Your task to perform on an android device: Go to Wikipedia Image 0: 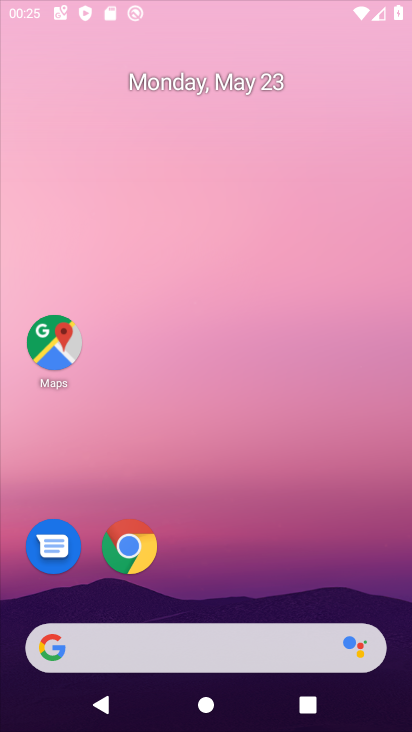
Step 0: click (307, 129)
Your task to perform on an android device: Go to Wikipedia Image 1: 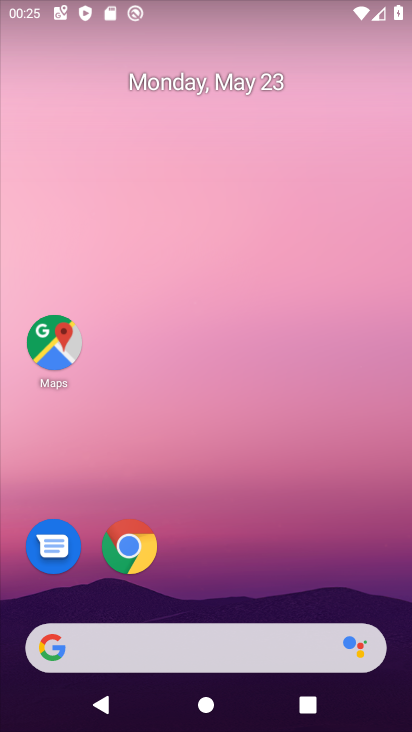
Step 1: drag from (181, 609) to (213, 140)
Your task to perform on an android device: Go to Wikipedia Image 2: 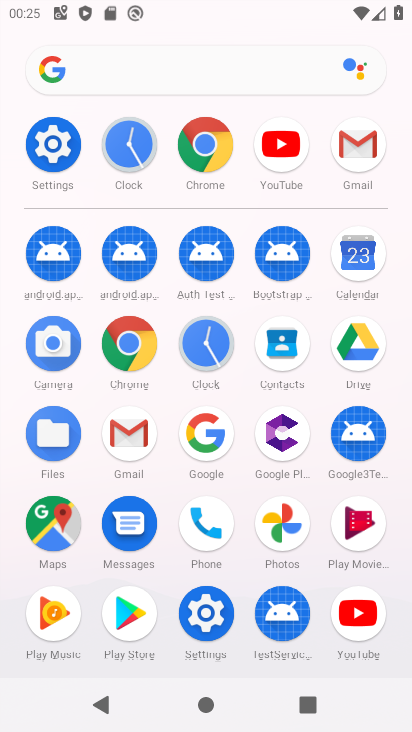
Step 2: click (170, 54)
Your task to perform on an android device: Go to Wikipedia Image 3: 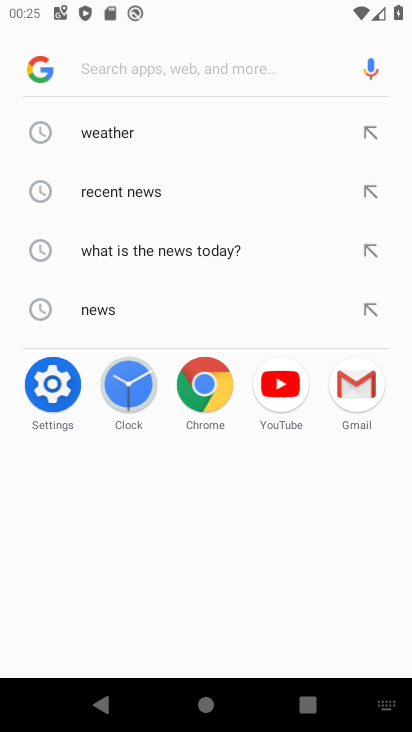
Step 3: type "wikipedia"
Your task to perform on an android device: Go to Wikipedia Image 4: 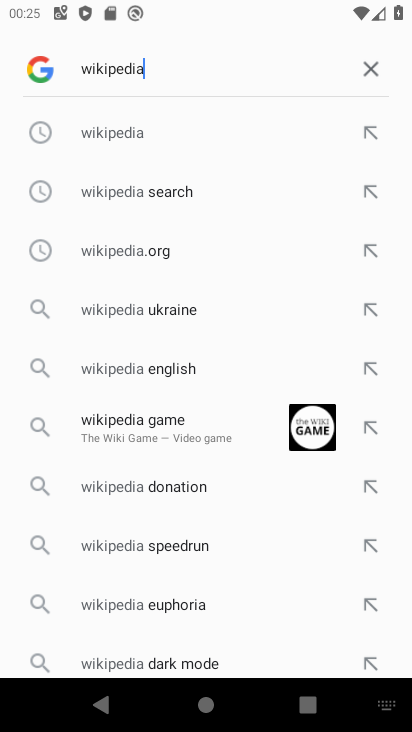
Step 4: click (100, 118)
Your task to perform on an android device: Go to Wikipedia Image 5: 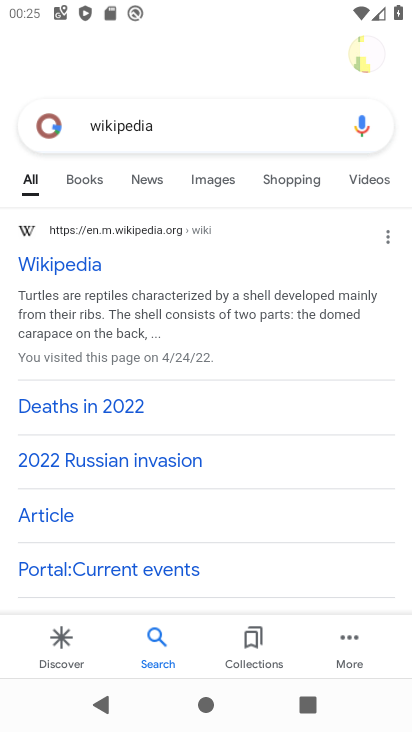
Step 5: drag from (259, 514) to (333, 114)
Your task to perform on an android device: Go to Wikipedia Image 6: 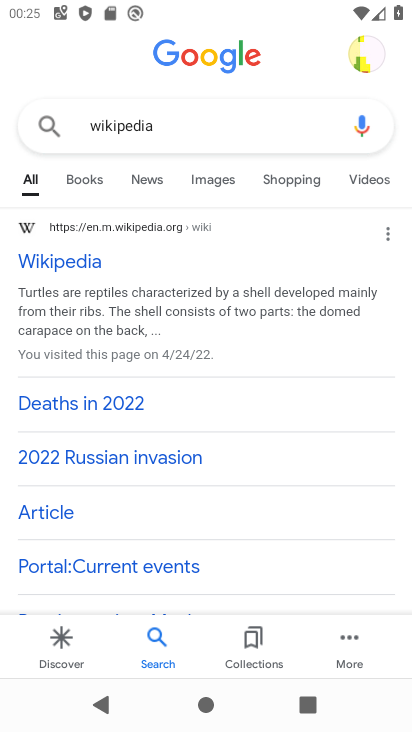
Step 6: drag from (236, 262) to (221, 672)
Your task to perform on an android device: Go to Wikipedia Image 7: 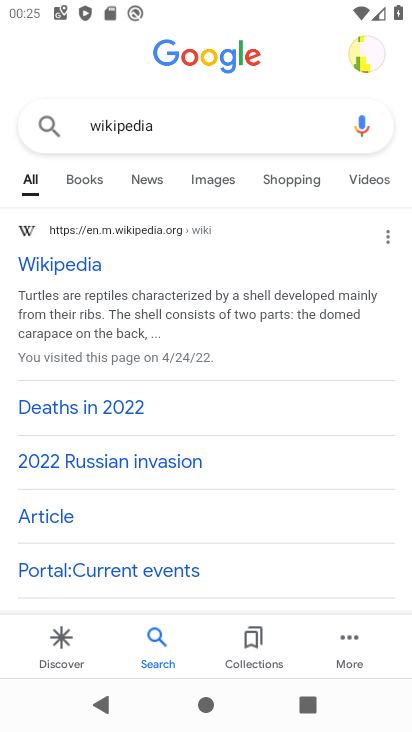
Step 7: click (64, 269)
Your task to perform on an android device: Go to Wikipedia Image 8: 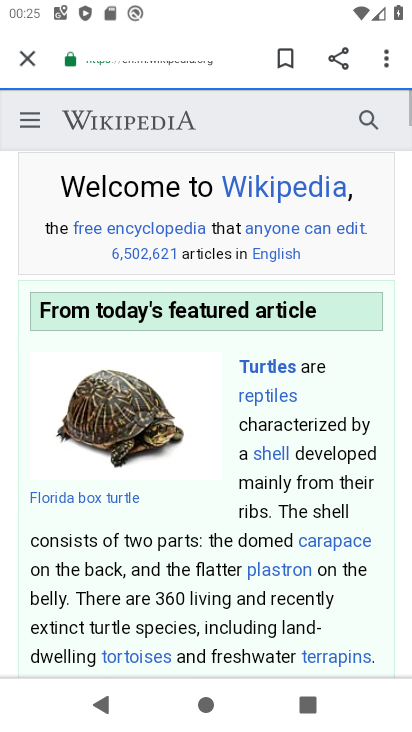
Step 8: task complete